Your task to perform on an android device: change the clock style Image 0: 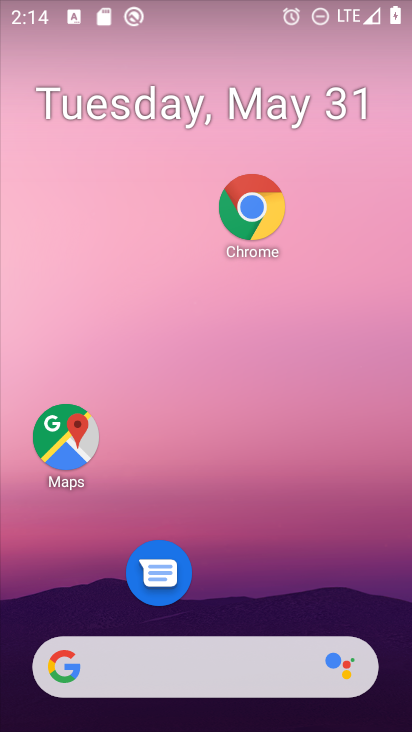
Step 0: drag from (250, 658) to (245, 236)
Your task to perform on an android device: change the clock style Image 1: 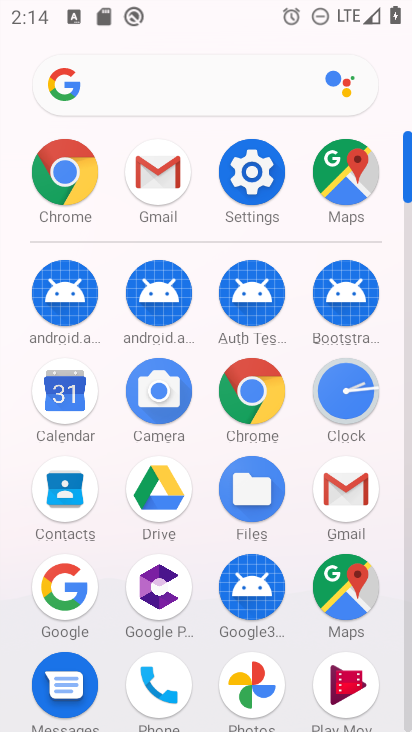
Step 1: click (358, 392)
Your task to perform on an android device: change the clock style Image 2: 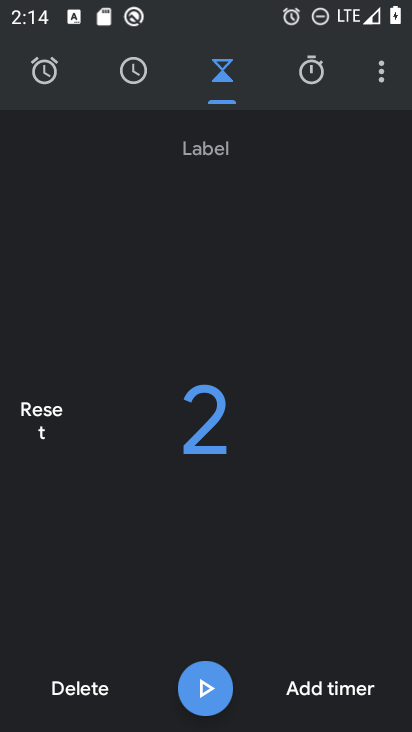
Step 2: click (381, 88)
Your task to perform on an android device: change the clock style Image 3: 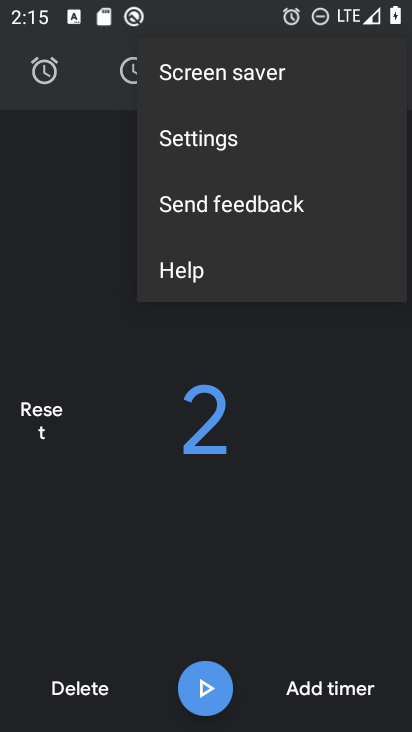
Step 3: click (226, 143)
Your task to perform on an android device: change the clock style Image 4: 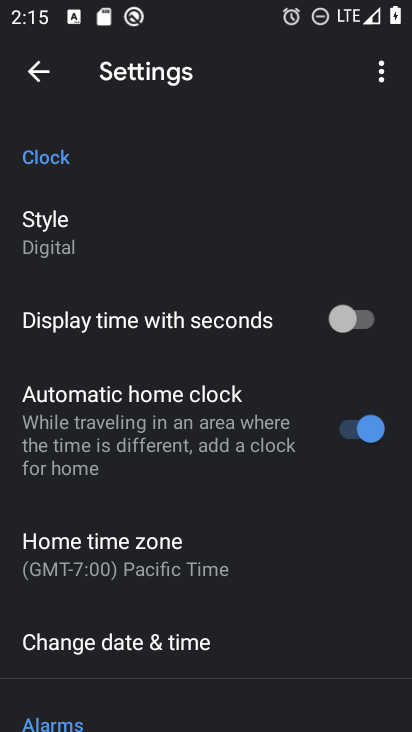
Step 4: click (79, 238)
Your task to perform on an android device: change the clock style Image 5: 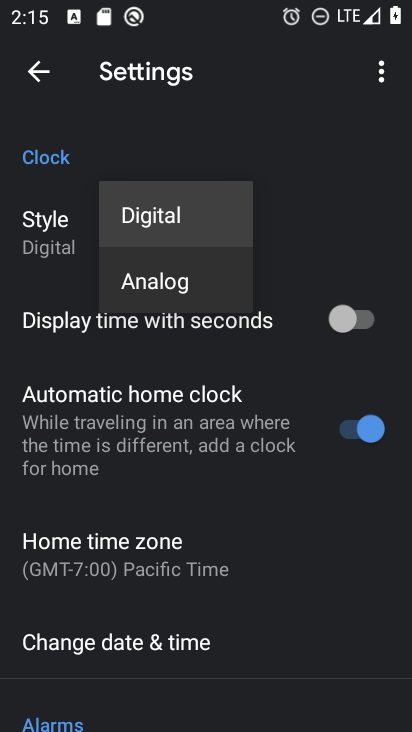
Step 5: click (136, 293)
Your task to perform on an android device: change the clock style Image 6: 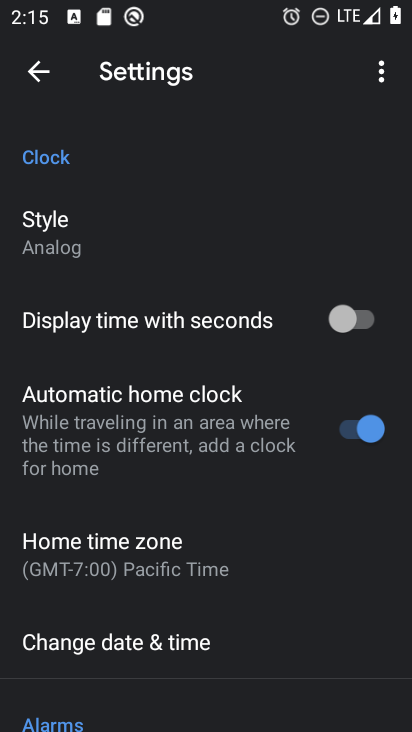
Step 6: click (73, 229)
Your task to perform on an android device: change the clock style Image 7: 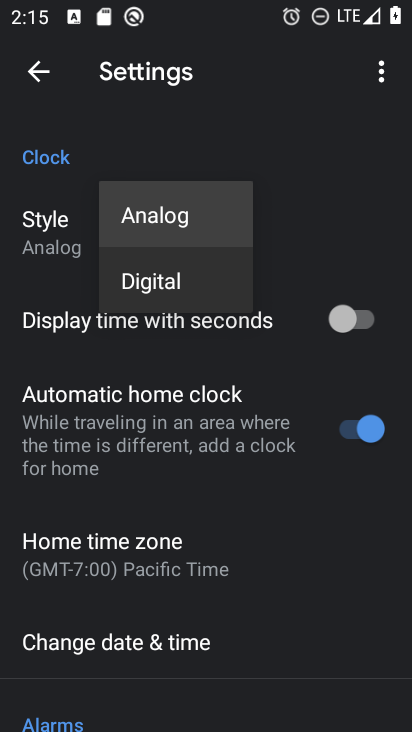
Step 7: click (155, 285)
Your task to perform on an android device: change the clock style Image 8: 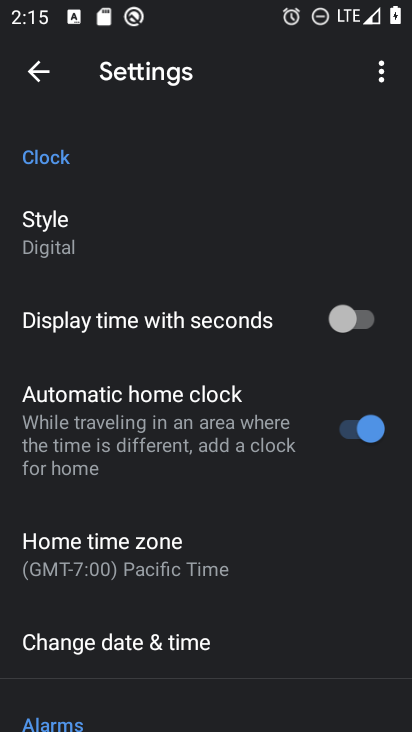
Step 8: task complete